Your task to perform on an android device: set an alarm Image 0: 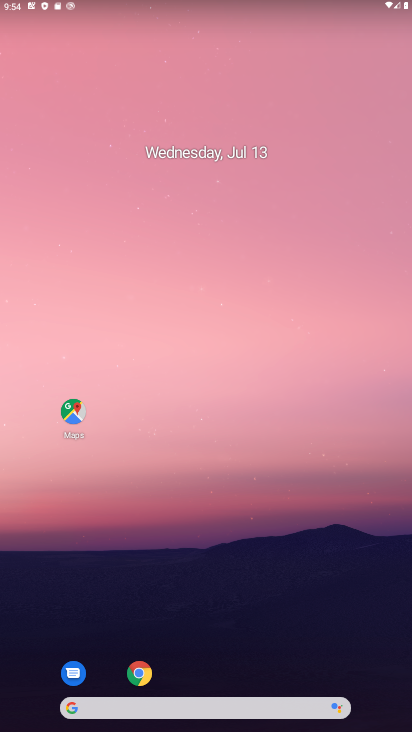
Step 0: drag from (205, 671) to (175, 153)
Your task to perform on an android device: set an alarm Image 1: 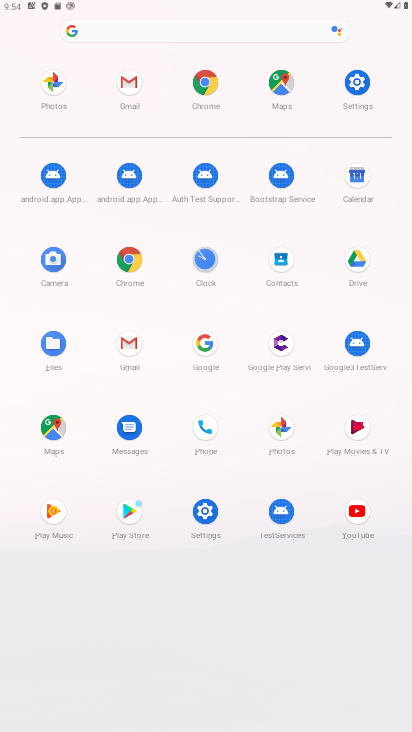
Step 1: click (200, 256)
Your task to perform on an android device: set an alarm Image 2: 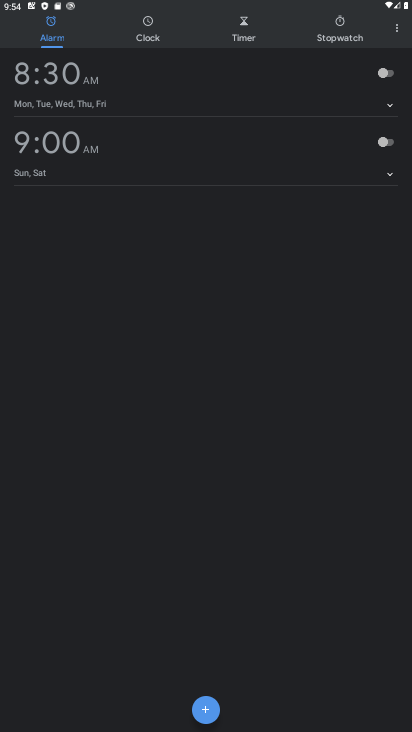
Step 2: click (394, 145)
Your task to perform on an android device: set an alarm Image 3: 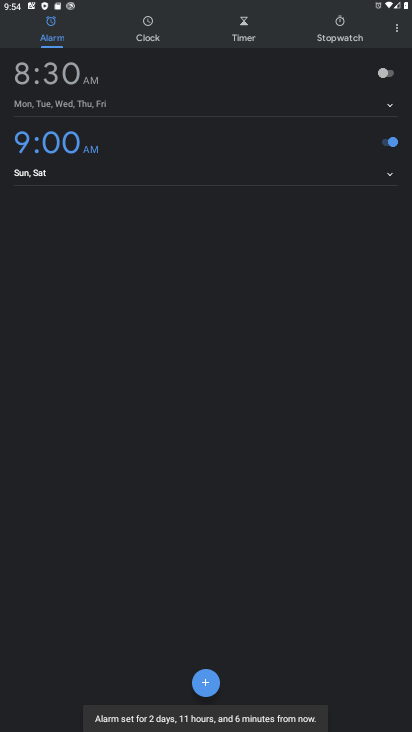
Step 3: task complete